Your task to perform on an android device: Go to ESPN.com Image 0: 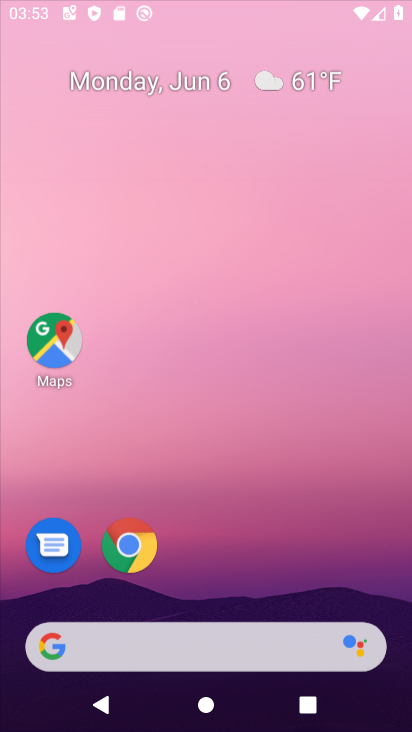
Step 0: press home button
Your task to perform on an android device: Go to ESPN.com Image 1: 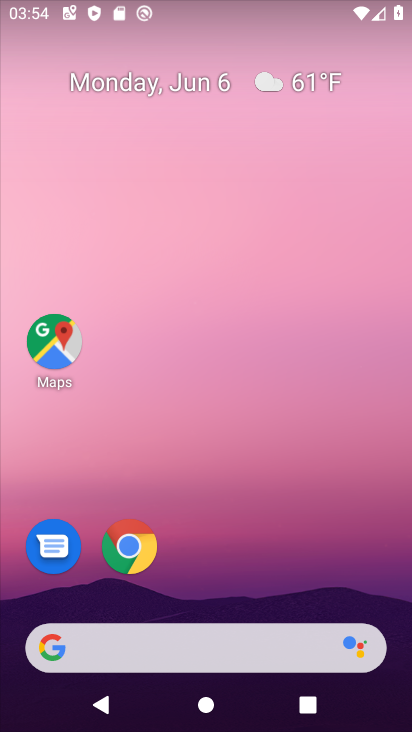
Step 1: click (52, 652)
Your task to perform on an android device: Go to ESPN.com Image 2: 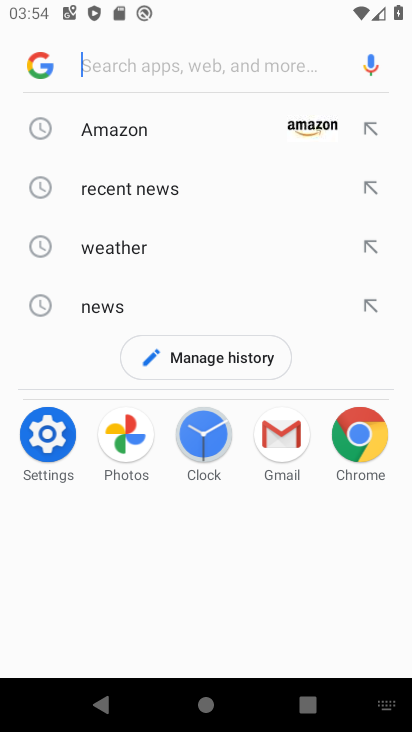
Step 2: type "ESPN.com"
Your task to perform on an android device: Go to ESPN.com Image 3: 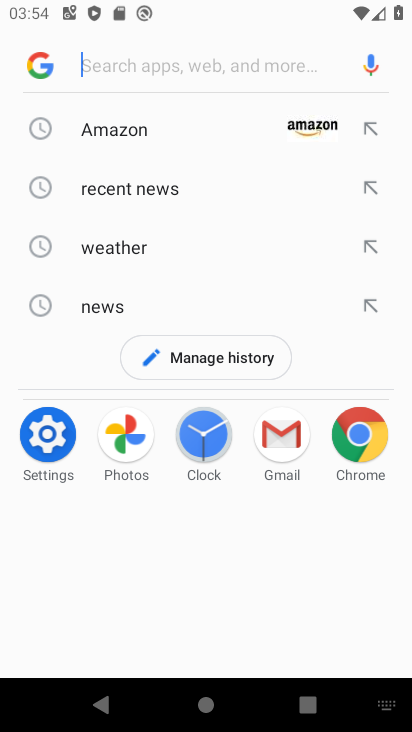
Step 3: click (176, 64)
Your task to perform on an android device: Go to ESPN.com Image 4: 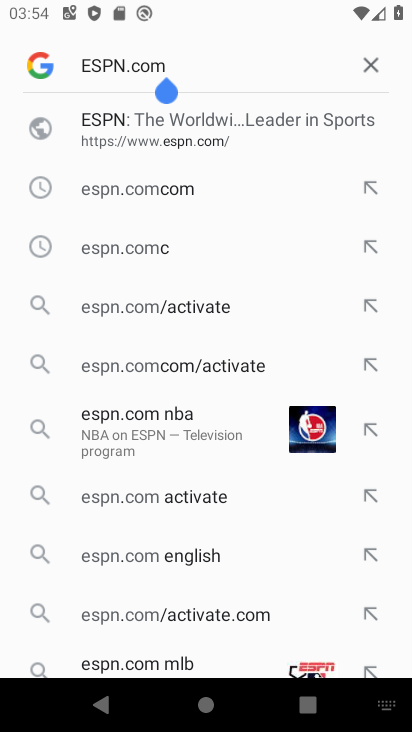
Step 4: click (104, 121)
Your task to perform on an android device: Go to ESPN.com Image 5: 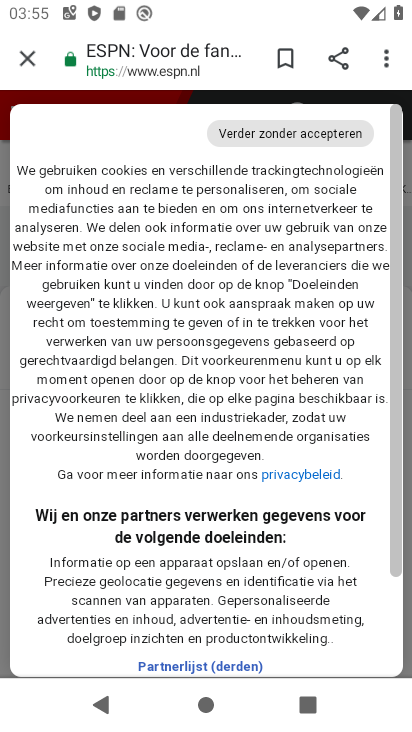
Step 5: task complete